Your task to perform on an android device: toggle notification dots Image 0: 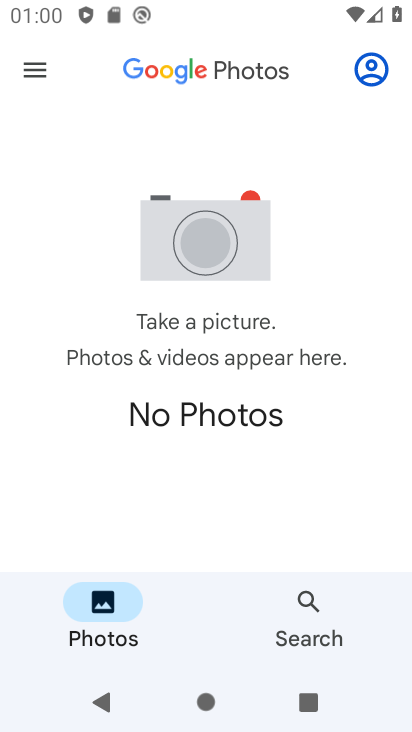
Step 0: press home button
Your task to perform on an android device: toggle notification dots Image 1: 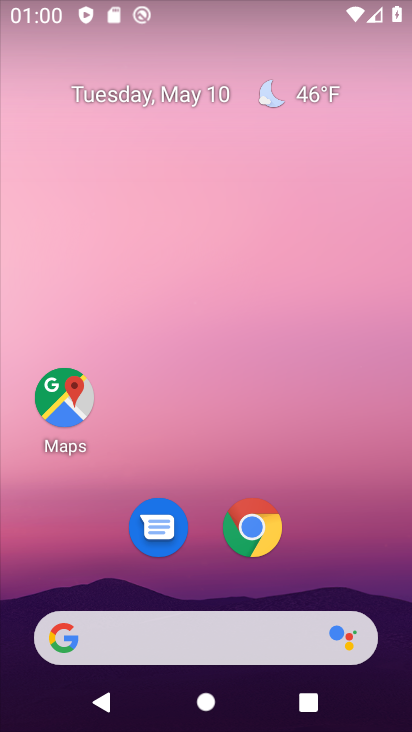
Step 1: drag from (330, 582) to (212, 187)
Your task to perform on an android device: toggle notification dots Image 2: 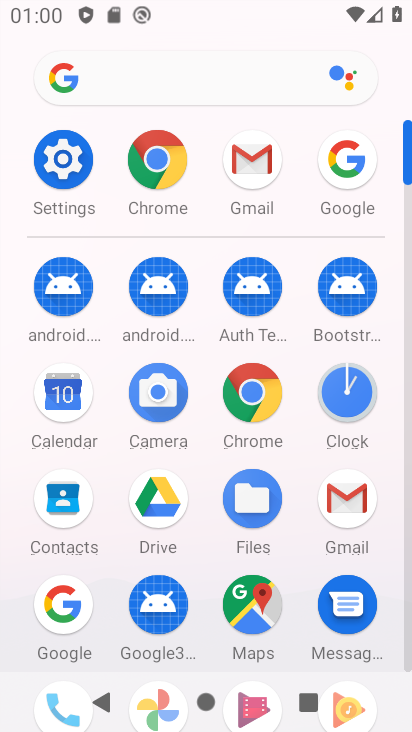
Step 2: click (79, 167)
Your task to perform on an android device: toggle notification dots Image 3: 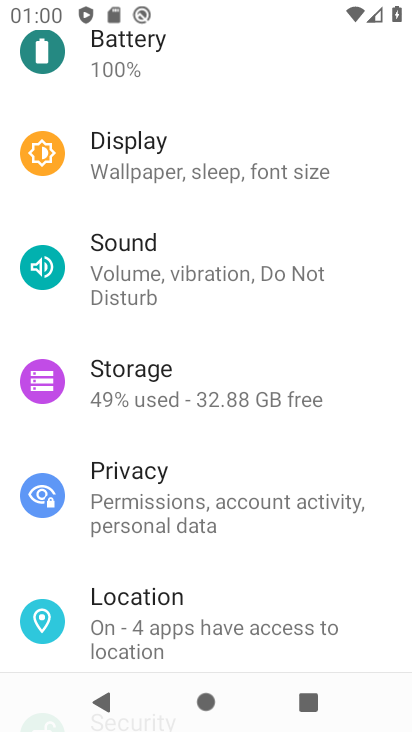
Step 3: drag from (221, 173) to (209, 435)
Your task to perform on an android device: toggle notification dots Image 4: 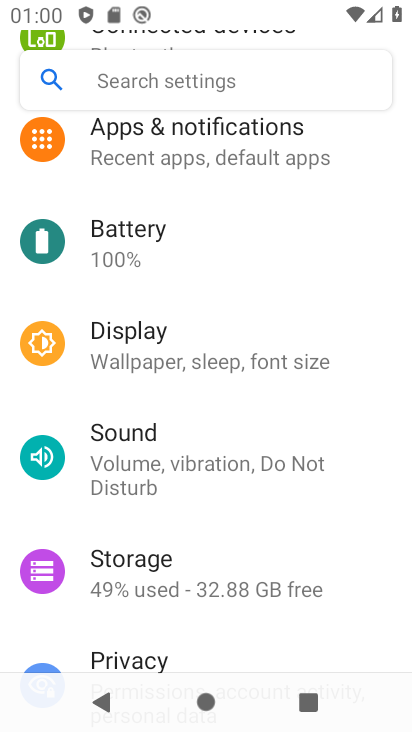
Step 4: click (191, 160)
Your task to perform on an android device: toggle notification dots Image 5: 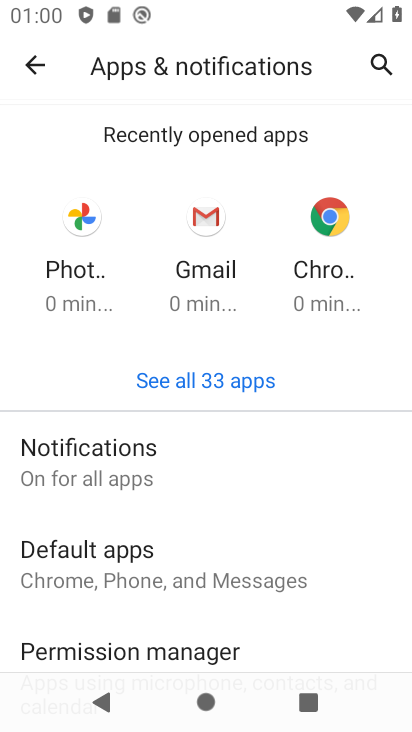
Step 5: click (121, 462)
Your task to perform on an android device: toggle notification dots Image 6: 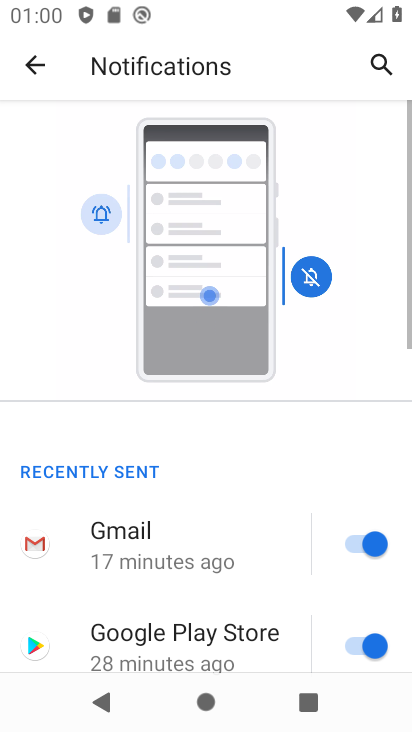
Step 6: drag from (168, 568) to (168, 155)
Your task to perform on an android device: toggle notification dots Image 7: 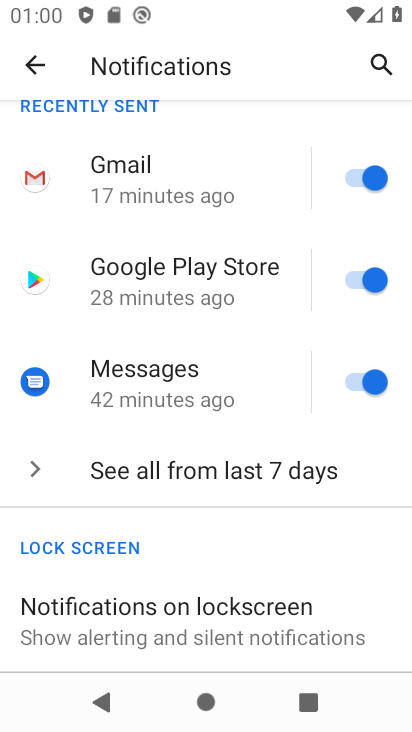
Step 7: drag from (172, 605) to (210, 237)
Your task to perform on an android device: toggle notification dots Image 8: 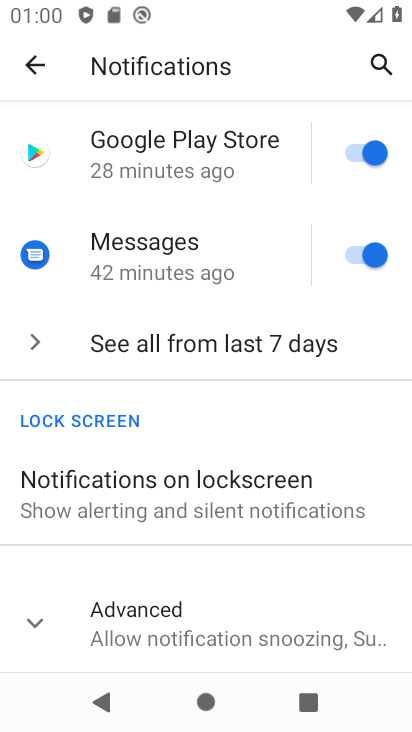
Step 8: click (171, 637)
Your task to perform on an android device: toggle notification dots Image 9: 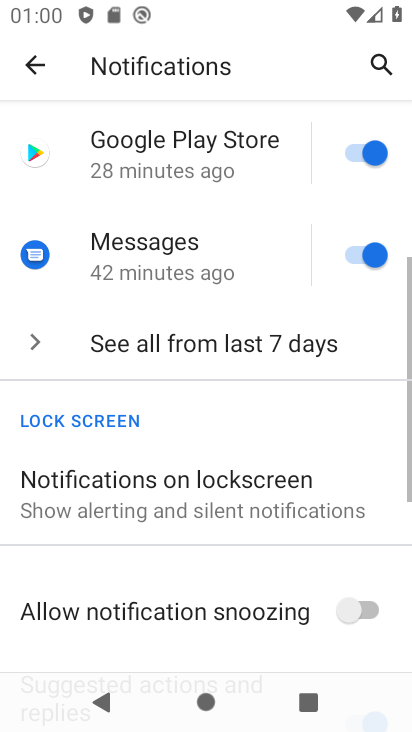
Step 9: drag from (174, 628) to (207, 321)
Your task to perform on an android device: toggle notification dots Image 10: 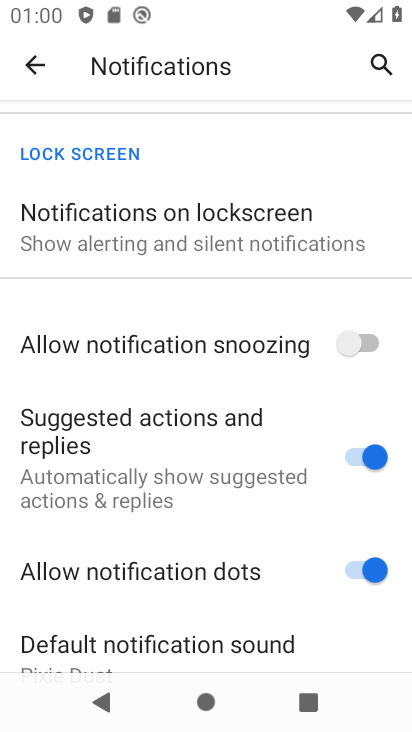
Step 10: click (376, 569)
Your task to perform on an android device: toggle notification dots Image 11: 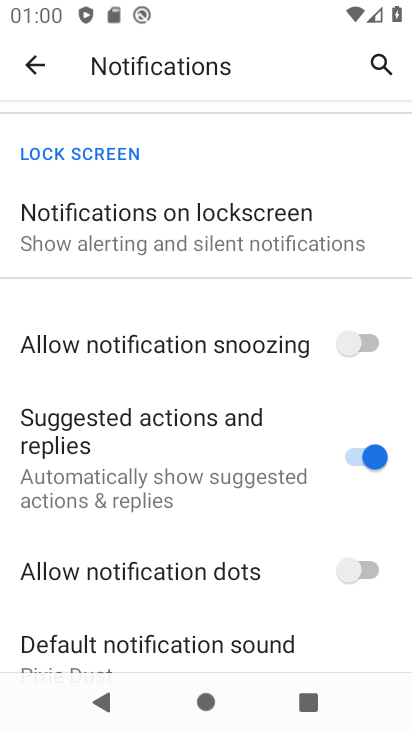
Step 11: task complete